Your task to perform on an android device: Open the stopwatch Image 0: 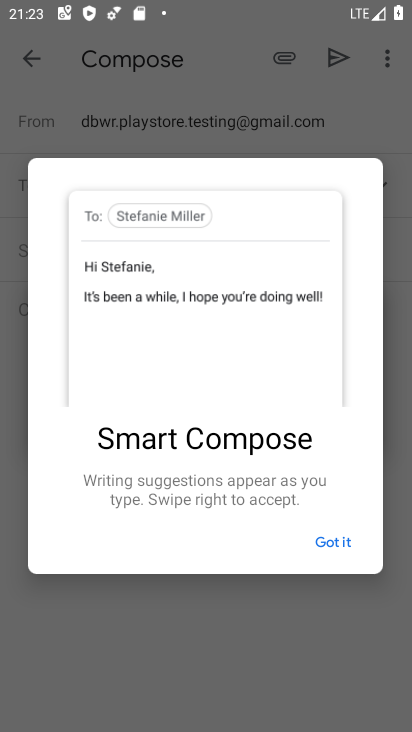
Step 0: press back button
Your task to perform on an android device: Open the stopwatch Image 1: 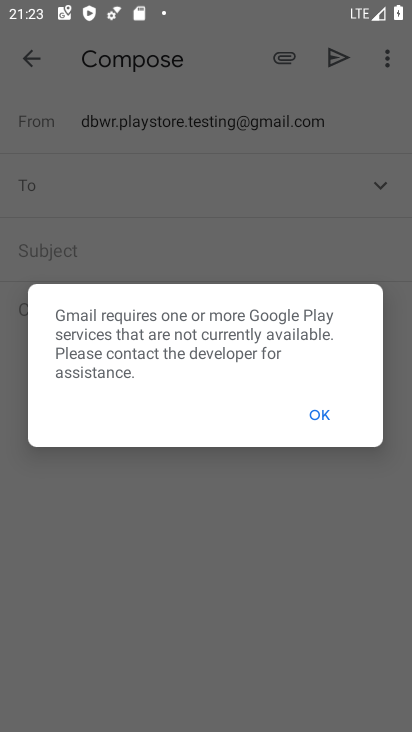
Step 1: press home button
Your task to perform on an android device: Open the stopwatch Image 2: 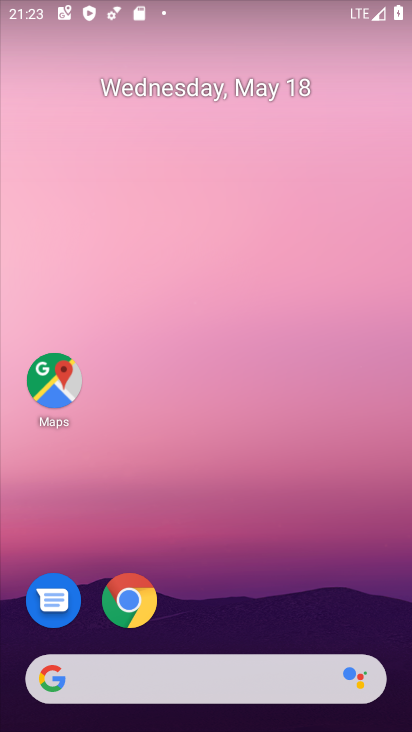
Step 2: drag from (196, 621) to (311, 0)
Your task to perform on an android device: Open the stopwatch Image 3: 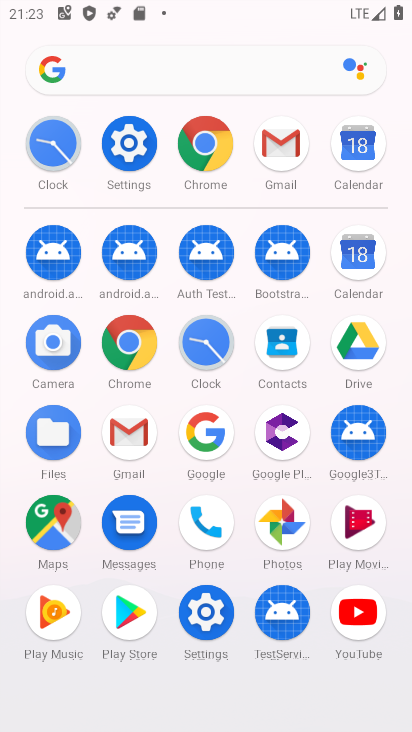
Step 3: click (192, 338)
Your task to perform on an android device: Open the stopwatch Image 4: 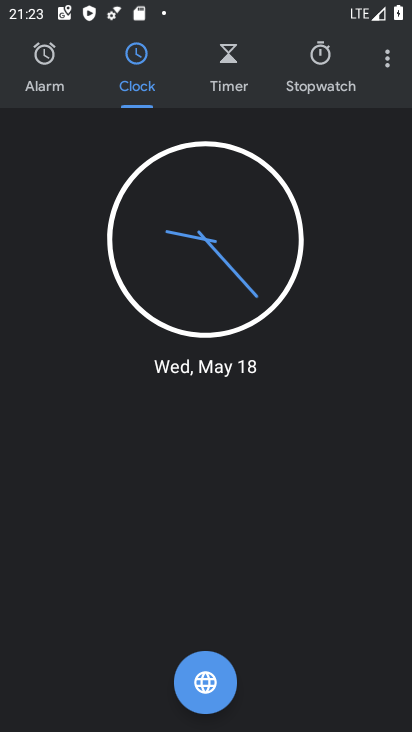
Step 4: click (301, 67)
Your task to perform on an android device: Open the stopwatch Image 5: 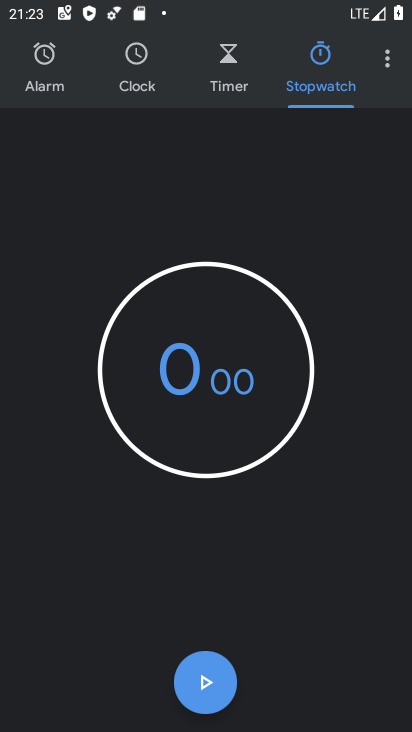
Step 5: task complete